Your task to perform on an android device: delete a single message in the gmail app Image 0: 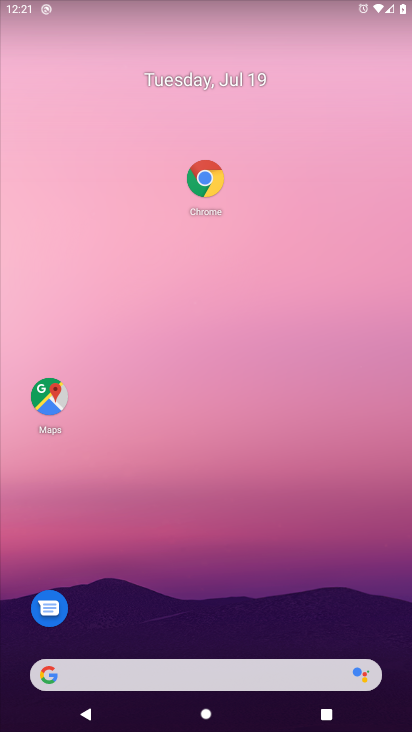
Step 0: drag from (46, 701) to (256, 148)
Your task to perform on an android device: delete a single message in the gmail app Image 1: 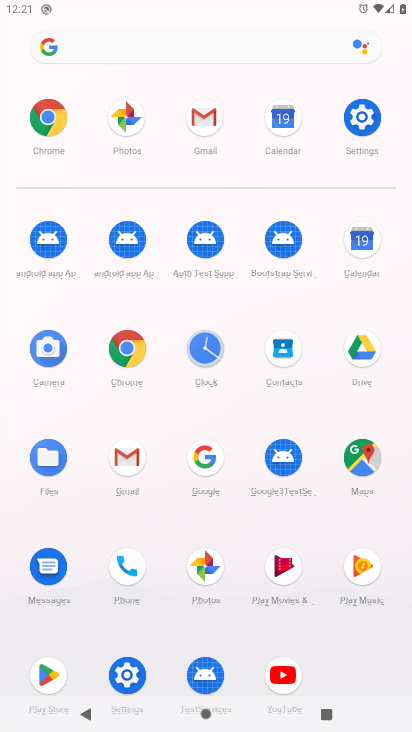
Step 1: click (132, 457)
Your task to perform on an android device: delete a single message in the gmail app Image 2: 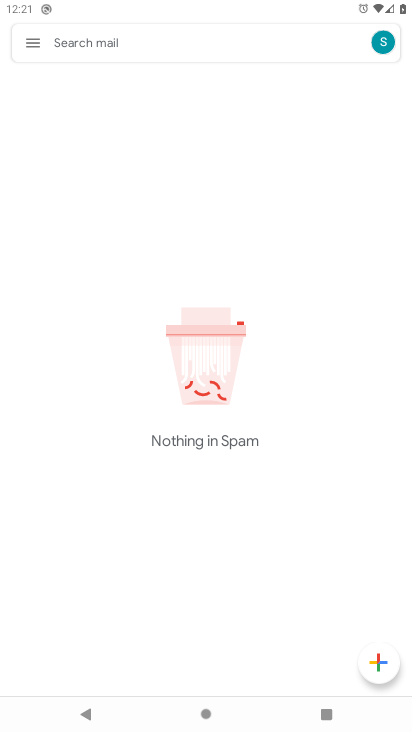
Step 2: click (21, 40)
Your task to perform on an android device: delete a single message in the gmail app Image 3: 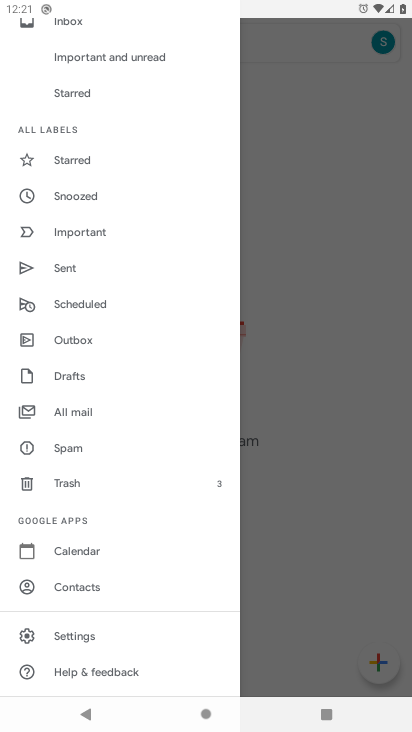
Step 3: click (101, 28)
Your task to perform on an android device: delete a single message in the gmail app Image 4: 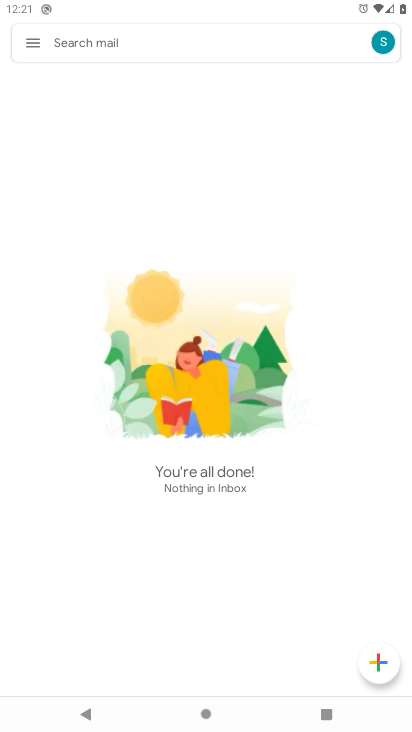
Step 4: task complete